Your task to perform on an android device: When is my next appointment? Image 0: 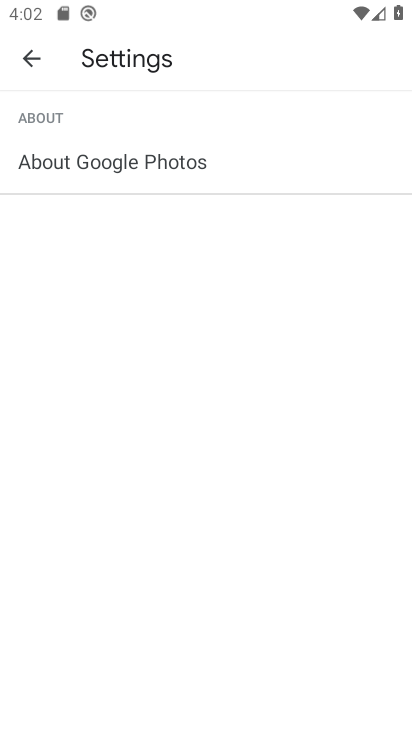
Step 0: press home button
Your task to perform on an android device: When is my next appointment? Image 1: 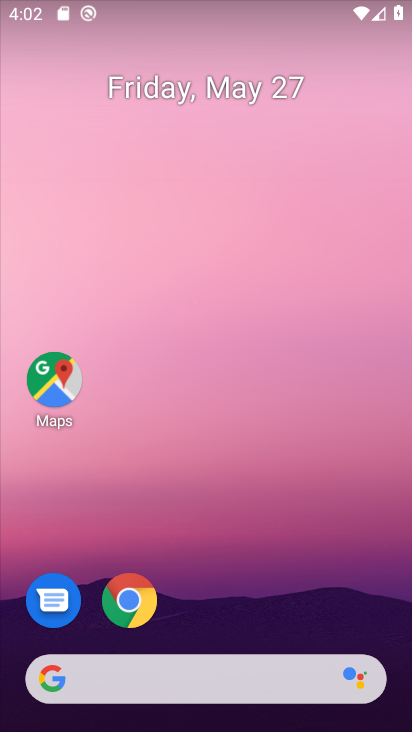
Step 1: drag from (170, 356) to (94, 0)
Your task to perform on an android device: When is my next appointment? Image 2: 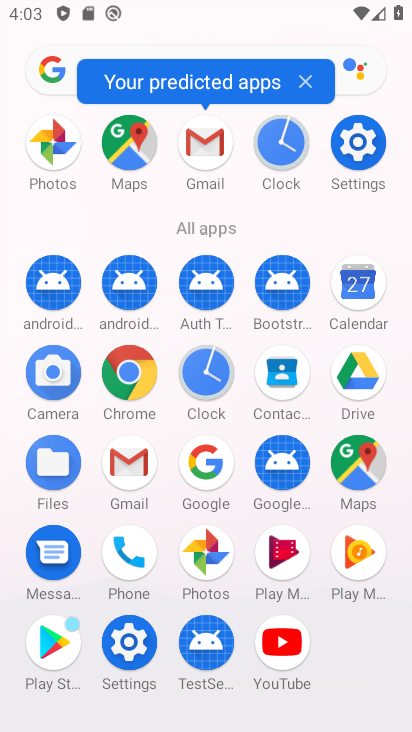
Step 2: click (351, 300)
Your task to perform on an android device: When is my next appointment? Image 3: 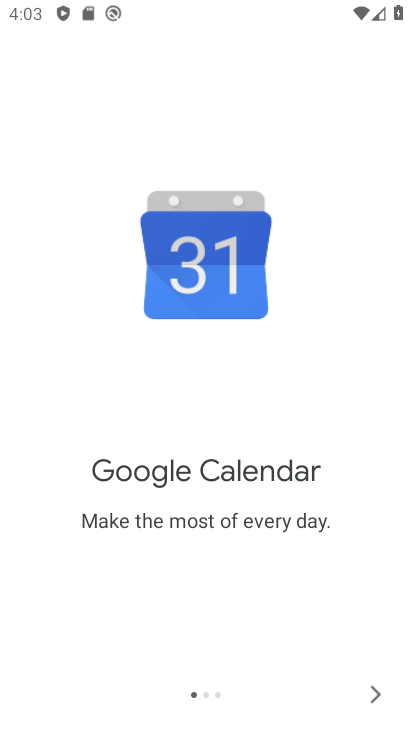
Step 3: click (359, 642)
Your task to perform on an android device: When is my next appointment? Image 4: 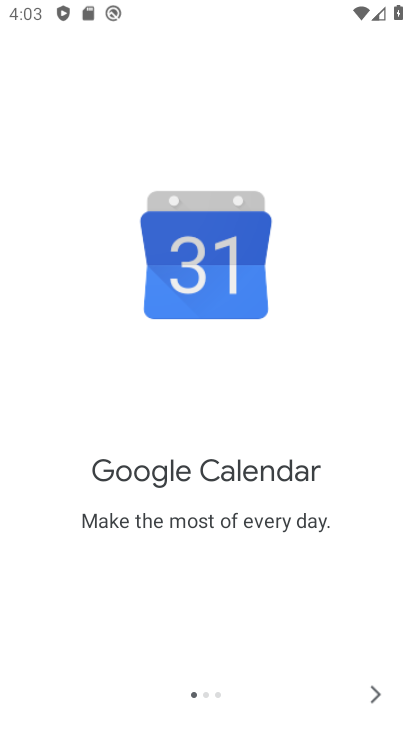
Step 4: click (370, 685)
Your task to perform on an android device: When is my next appointment? Image 5: 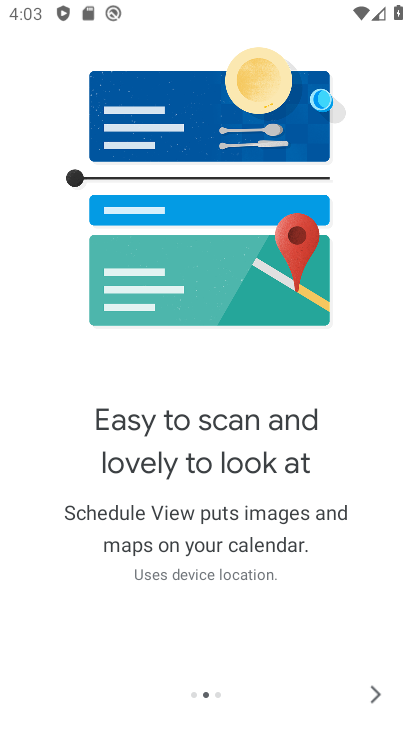
Step 5: click (389, 705)
Your task to perform on an android device: When is my next appointment? Image 6: 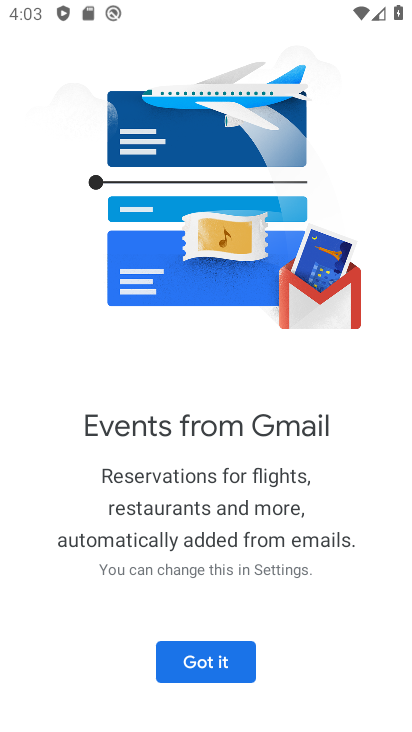
Step 6: click (216, 663)
Your task to perform on an android device: When is my next appointment? Image 7: 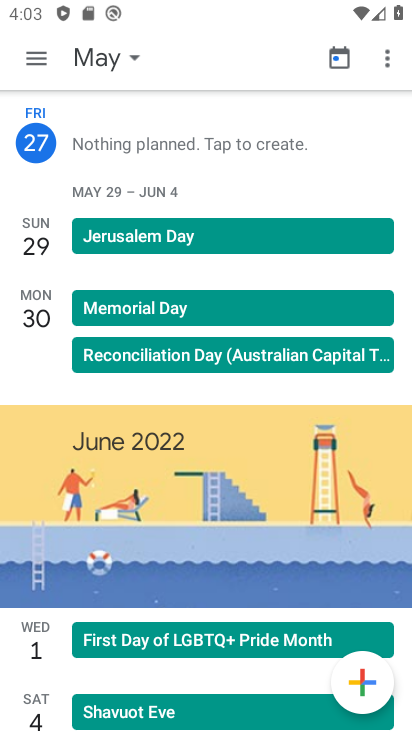
Step 7: task complete